Your task to perform on an android device: Open display settings Image 0: 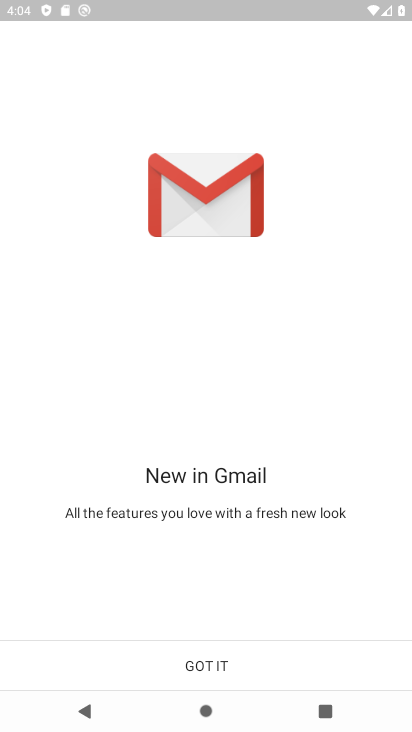
Step 0: press home button
Your task to perform on an android device: Open display settings Image 1: 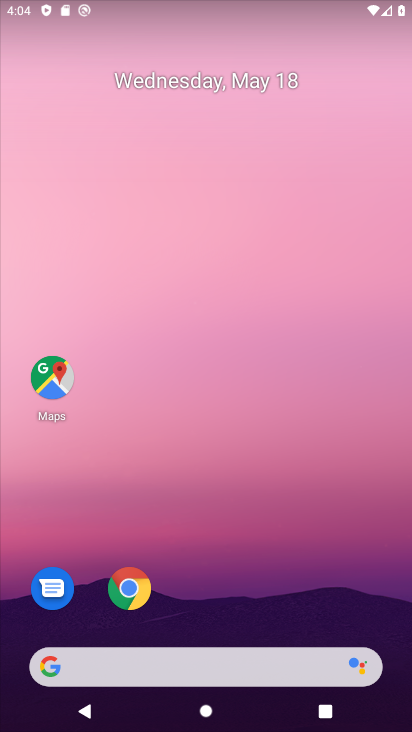
Step 1: drag from (320, 632) to (268, 122)
Your task to perform on an android device: Open display settings Image 2: 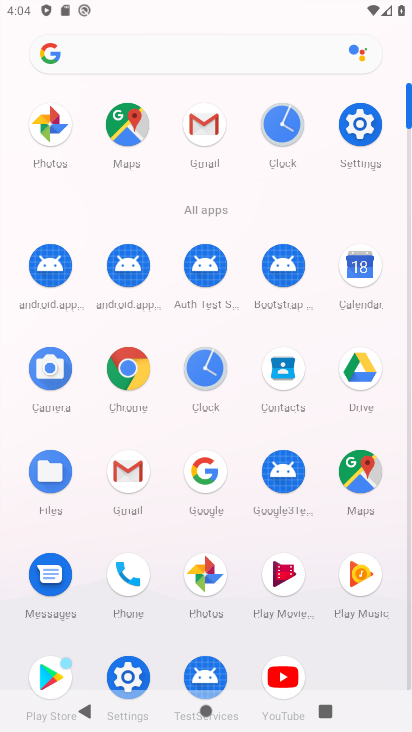
Step 2: click (377, 127)
Your task to perform on an android device: Open display settings Image 3: 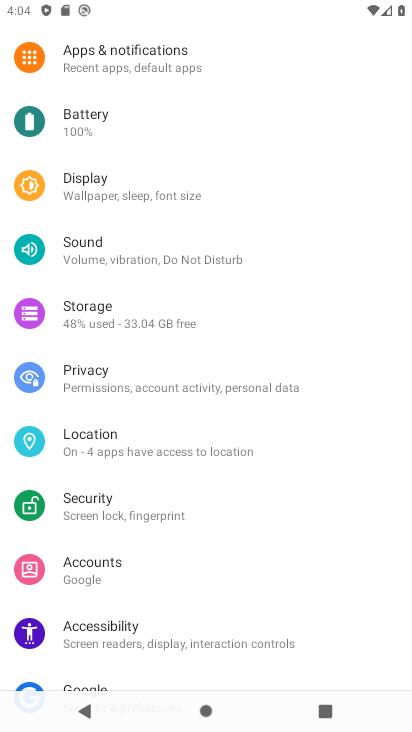
Step 3: click (117, 192)
Your task to perform on an android device: Open display settings Image 4: 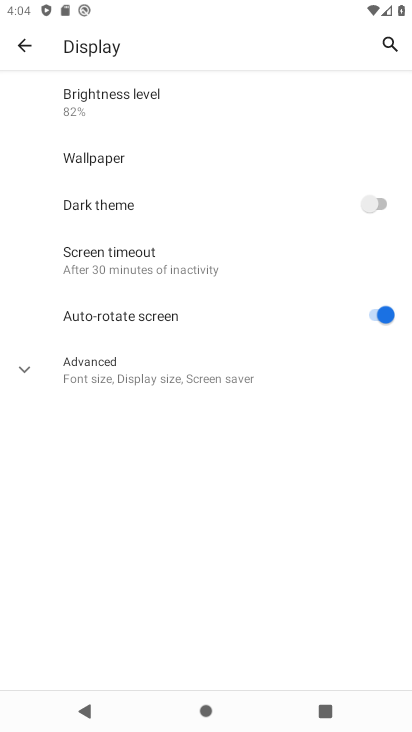
Step 4: task complete